Your task to perform on an android device: change the clock display to show seconds Image 0: 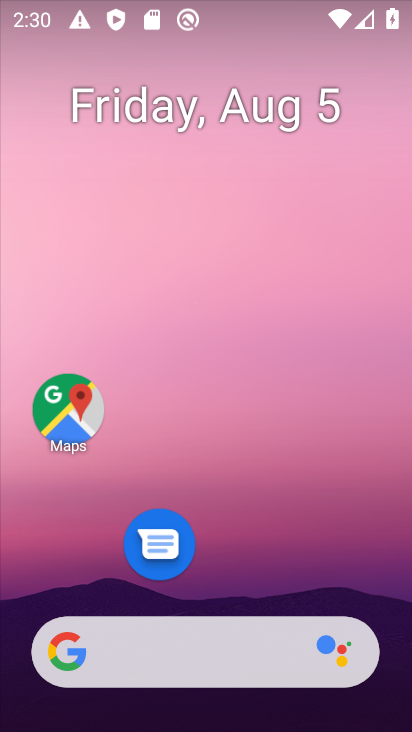
Step 0: drag from (234, 598) to (233, 68)
Your task to perform on an android device: change the clock display to show seconds Image 1: 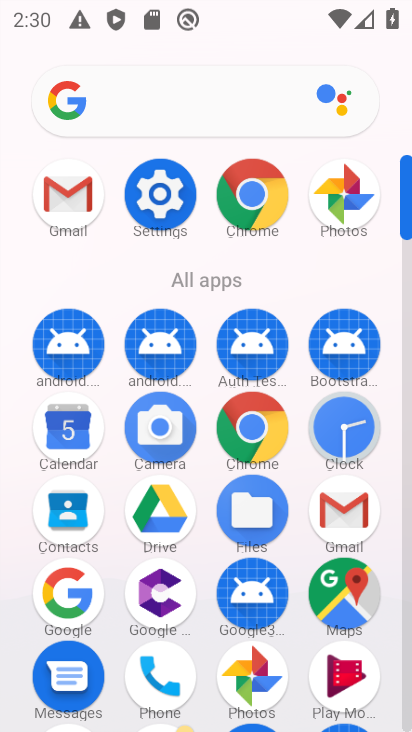
Step 1: click (72, 175)
Your task to perform on an android device: change the clock display to show seconds Image 2: 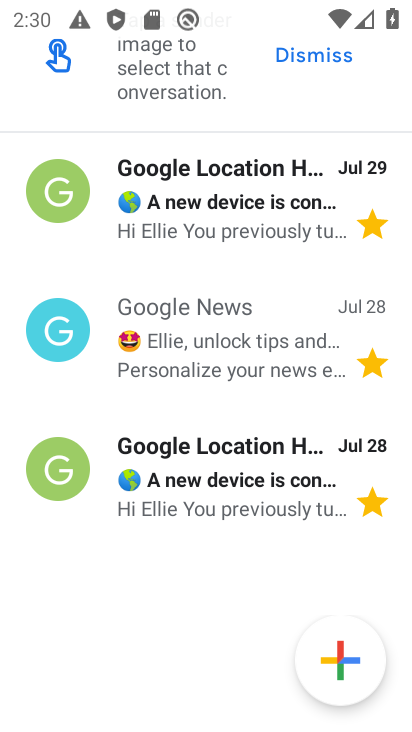
Step 2: press home button
Your task to perform on an android device: change the clock display to show seconds Image 3: 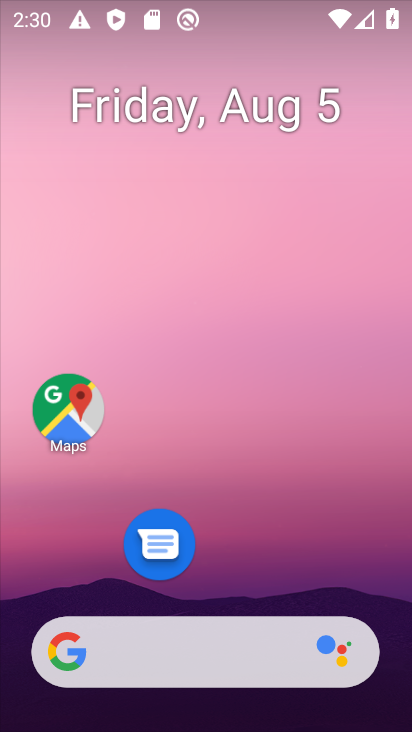
Step 3: drag from (272, 602) to (245, 23)
Your task to perform on an android device: change the clock display to show seconds Image 4: 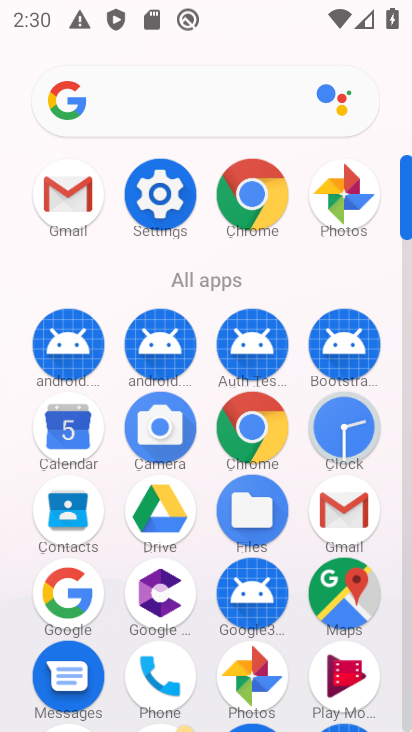
Step 4: click (334, 440)
Your task to perform on an android device: change the clock display to show seconds Image 5: 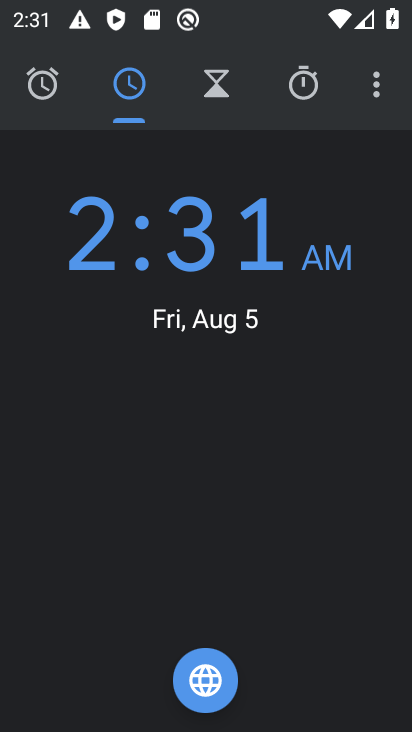
Step 5: click (385, 84)
Your task to perform on an android device: change the clock display to show seconds Image 6: 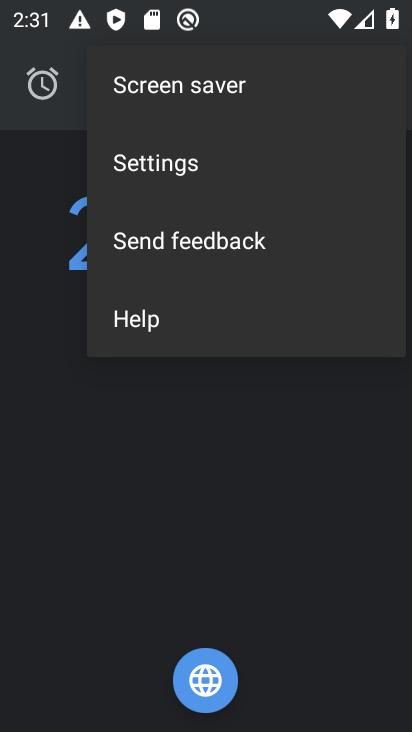
Step 6: click (173, 176)
Your task to perform on an android device: change the clock display to show seconds Image 7: 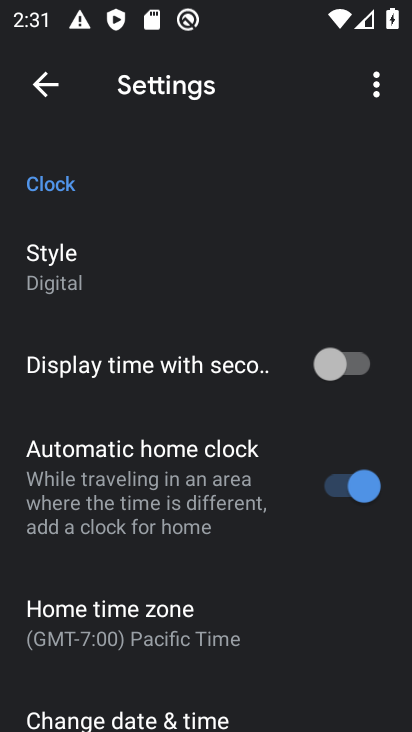
Step 7: click (345, 368)
Your task to perform on an android device: change the clock display to show seconds Image 8: 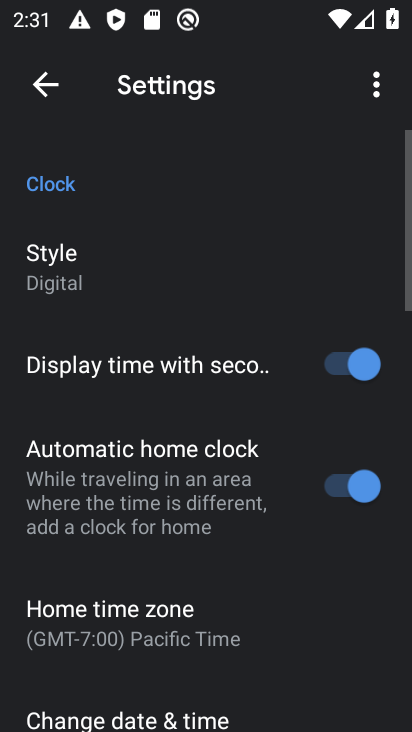
Step 8: task complete